Your task to perform on an android device: Open Amazon Image 0: 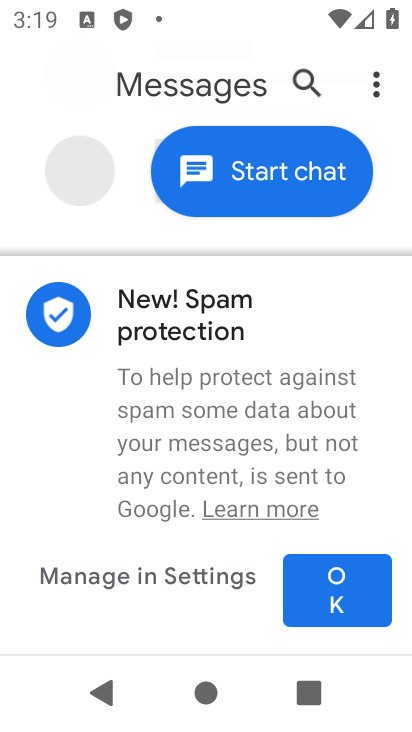
Step 0: press home button
Your task to perform on an android device: Open Amazon Image 1: 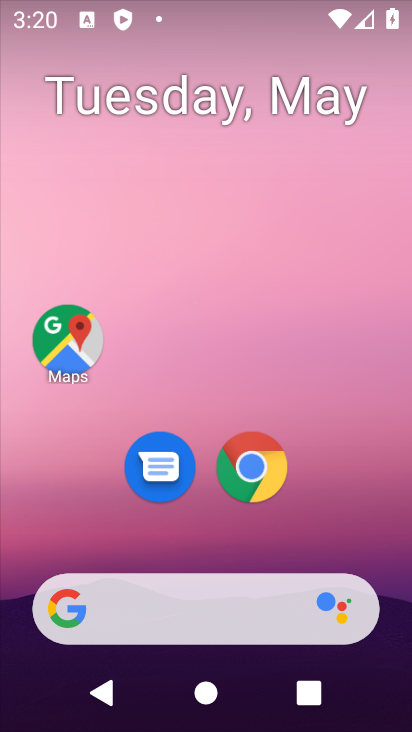
Step 1: click (241, 475)
Your task to perform on an android device: Open Amazon Image 2: 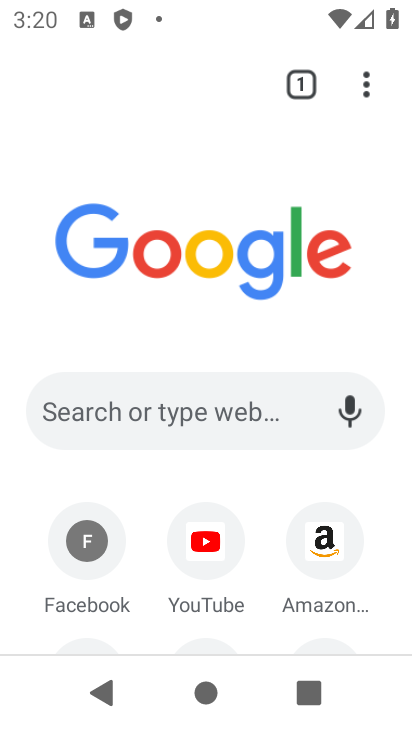
Step 2: click (320, 524)
Your task to perform on an android device: Open Amazon Image 3: 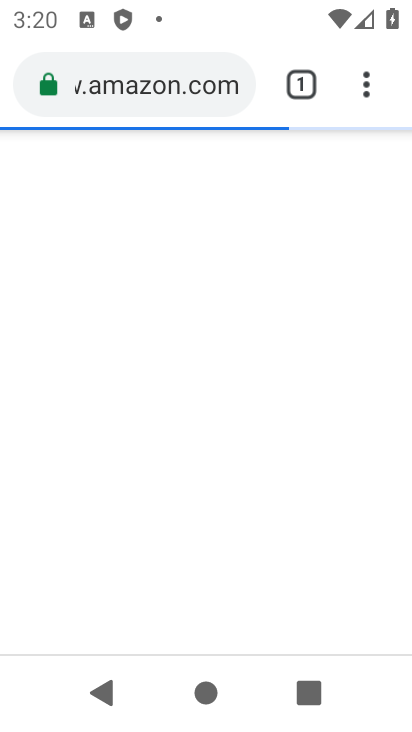
Step 3: task complete